Your task to perform on an android device: What is the news today? Image 0: 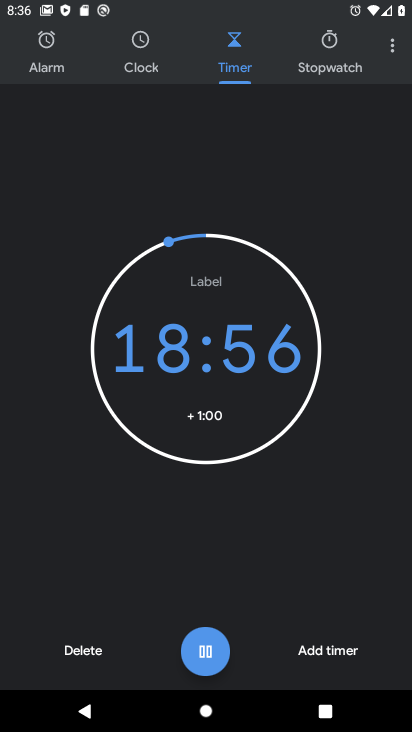
Step 0: press home button
Your task to perform on an android device: What is the news today? Image 1: 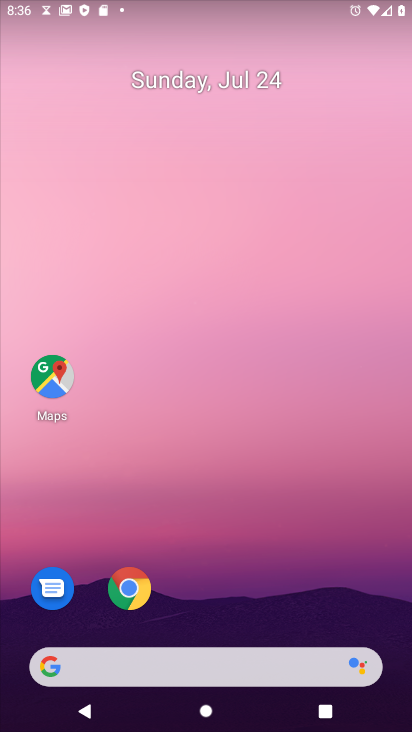
Step 1: task complete